Your task to perform on an android device: What is the news today? Image 0: 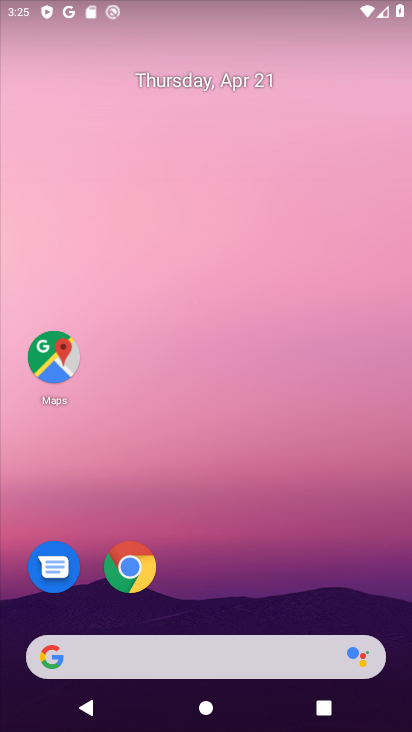
Step 0: drag from (7, 289) to (365, 319)
Your task to perform on an android device: What is the news today? Image 1: 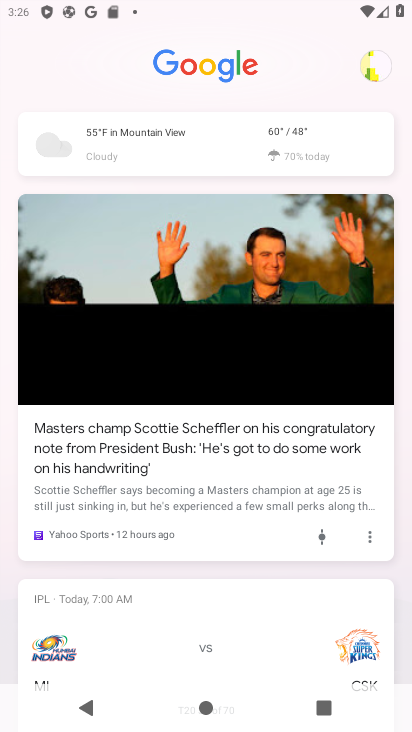
Step 1: task complete